Your task to perform on an android device: Show me popular games on the Play Store Image 0: 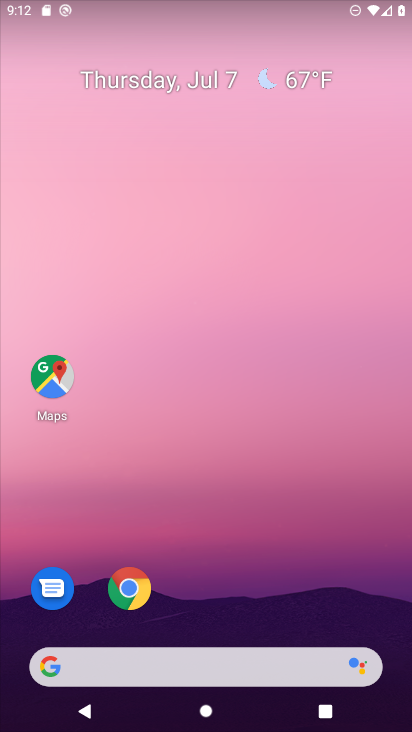
Step 0: drag from (241, 508) to (245, 17)
Your task to perform on an android device: Show me popular games on the Play Store Image 1: 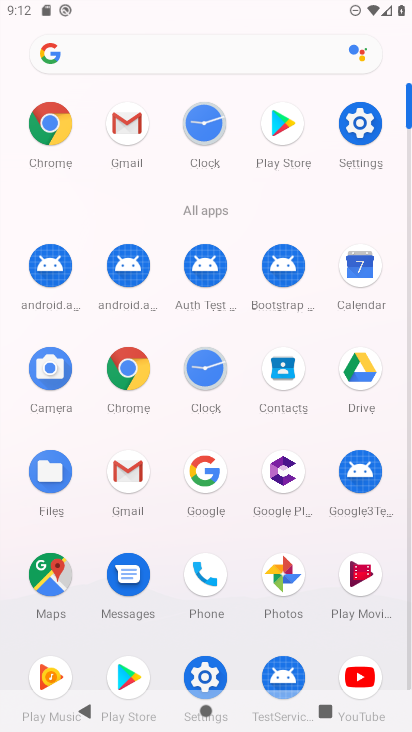
Step 1: click (286, 123)
Your task to perform on an android device: Show me popular games on the Play Store Image 2: 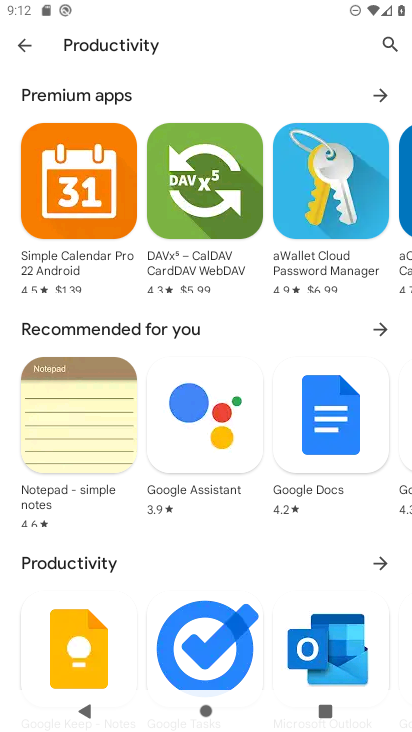
Step 2: press back button
Your task to perform on an android device: Show me popular games on the Play Store Image 3: 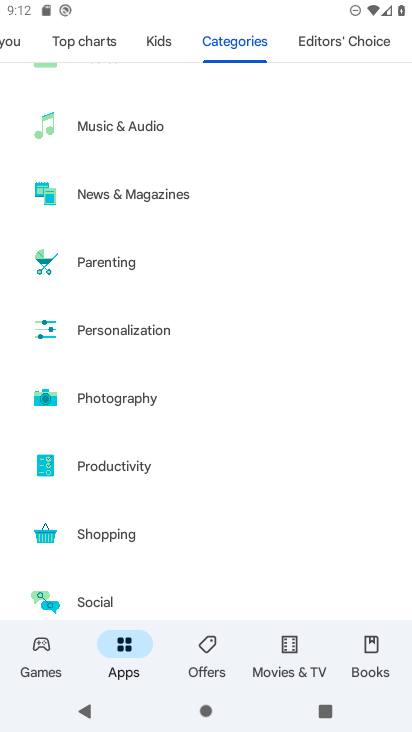
Step 3: click (44, 647)
Your task to perform on an android device: Show me popular games on the Play Store Image 4: 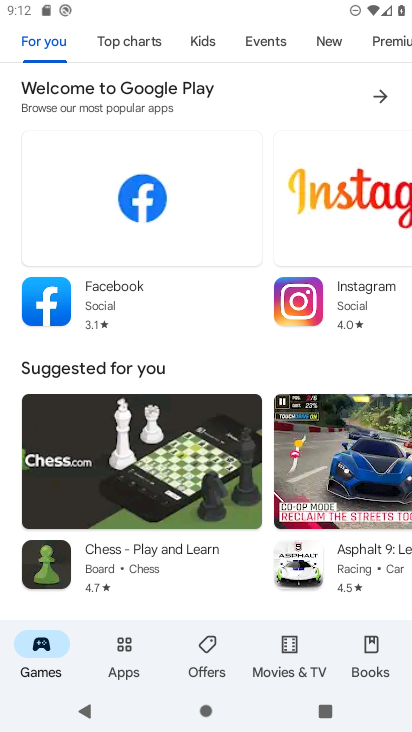
Step 4: drag from (242, 108) to (215, 554)
Your task to perform on an android device: Show me popular games on the Play Store Image 5: 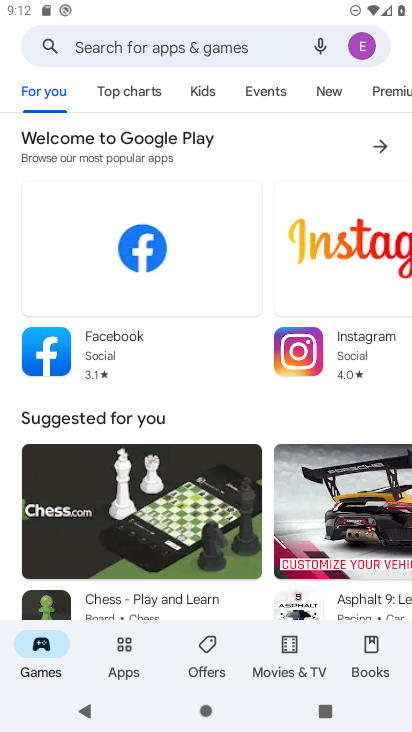
Step 5: click (175, 42)
Your task to perform on an android device: Show me popular games on the Play Store Image 6: 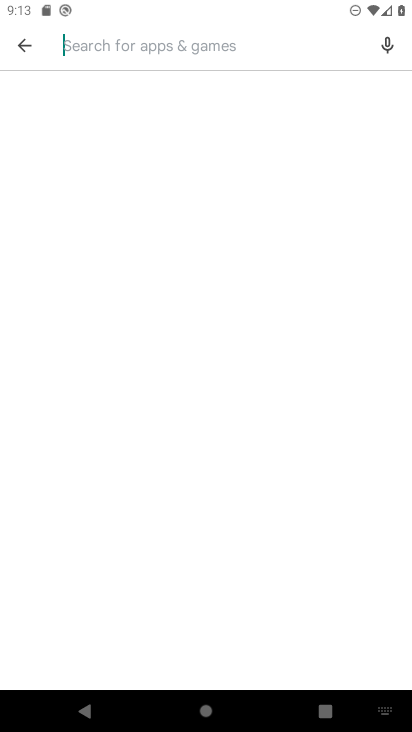
Step 6: type "popular games"
Your task to perform on an android device: Show me popular games on the Play Store Image 7: 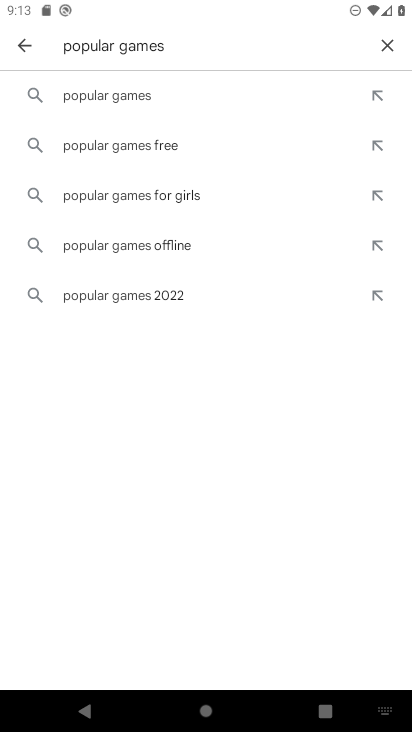
Step 7: click (115, 88)
Your task to perform on an android device: Show me popular games on the Play Store Image 8: 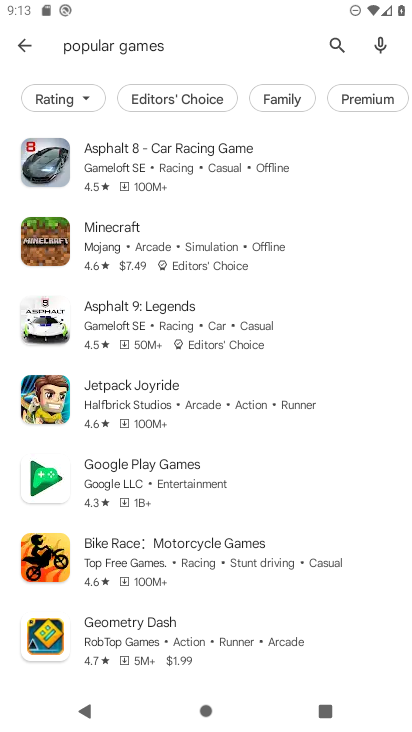
Step 8: task complete